Your task to perform on an android device: toggle notifications settings in the gmail app Image 0: 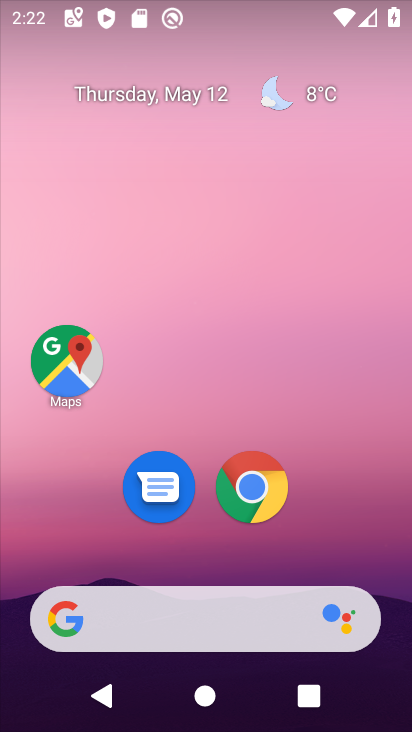
Step 0: drag from (210, 564) to (290, 9)
Your task to perform on an android device: toggle notifications settings in the gmail app Image 1: 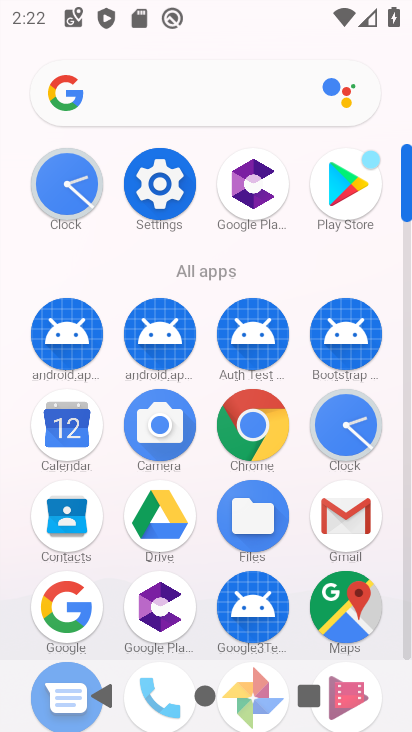
Step 1: click (336, 516)
Your task to perform on an android device: toggle notifications settings in the gmail app Image 2: 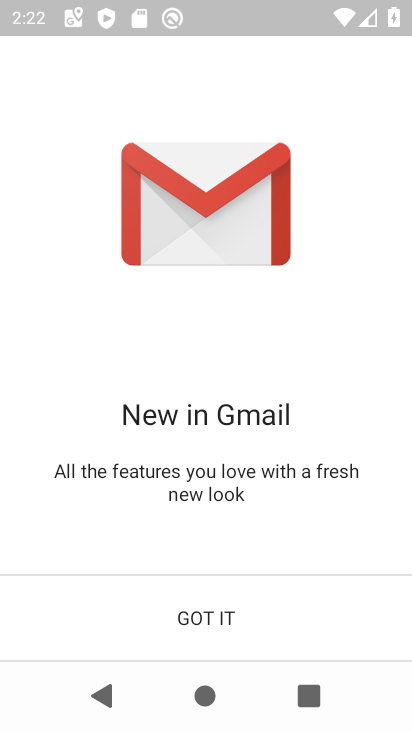
Step 2: click (197, 616)
Your task to perform on an android device: toggle notifications settings in the gmail app Image 3: 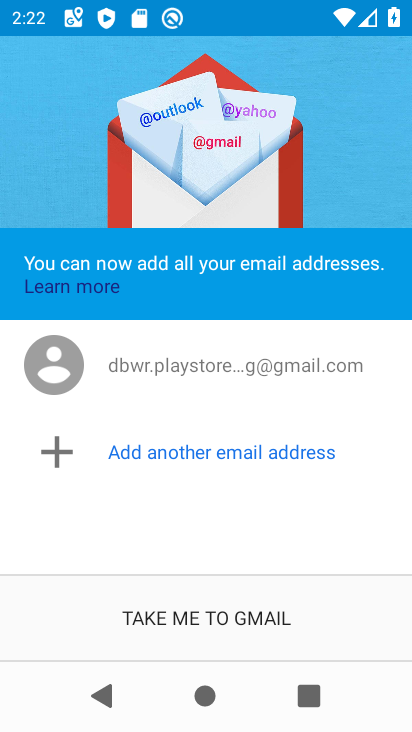
Step 3: click (197, 616)
Your task to perform on an android device: toggle notifications settings in the gmail app Image 4: 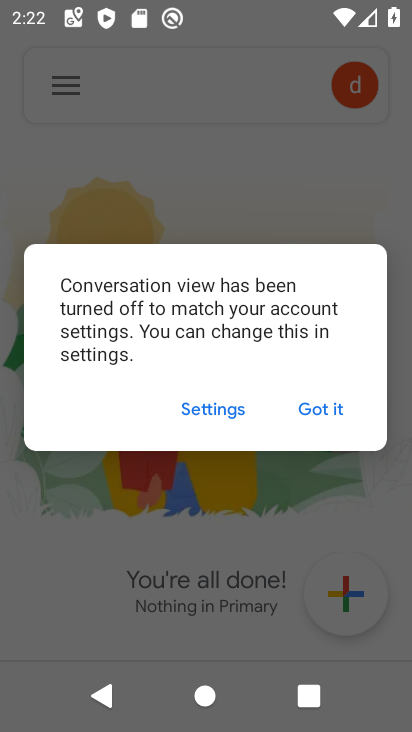
Step 4: click (309, 418)
Your task to perform on an android device: toggle notifications settings in the gmail app Image 5: 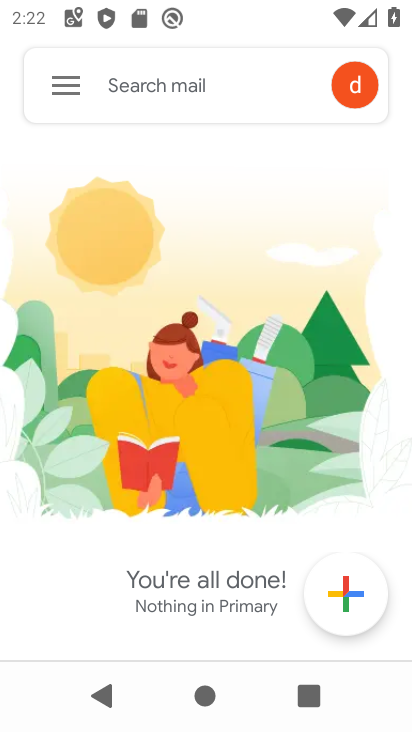
Step 5: click (64, 95)
Your task to perform on an android device: toggle notifications settings in the gmail app Image 6: 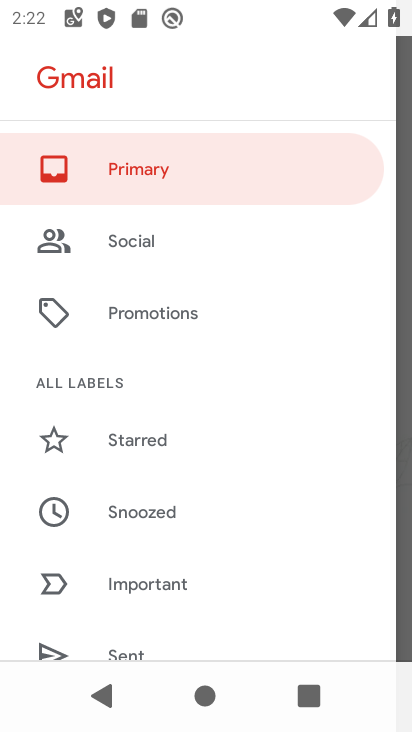
Step 6: drag from (168, 580) to (177, 129)
Your task to perform on an android device: toggle notifications settings in the gmail app Image 7: 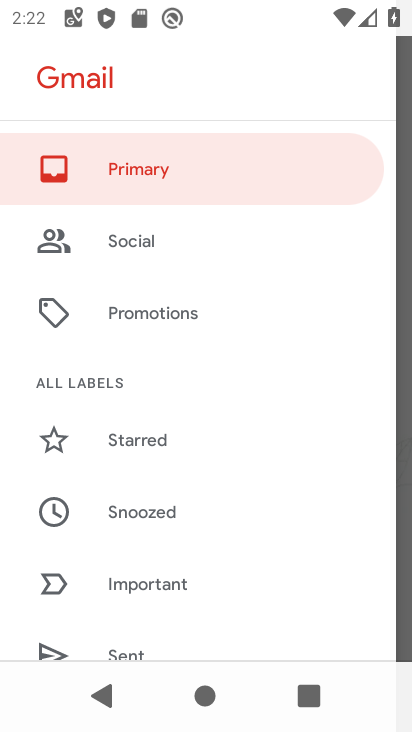
Step 7: drag from (169, 623) to (235, 84)
Your task to perform on an android device: toggle notifications settings in the gmail app Image 8: 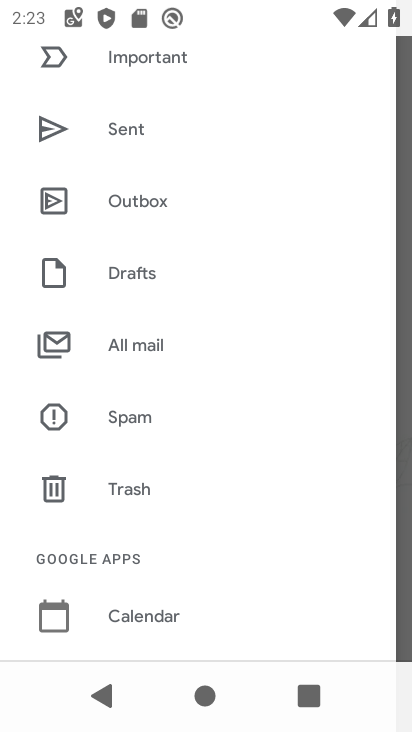
Step 8: drag from (194, 614) to (262, 65)
Your task to perform on an android device: toggle notifications settings in the gmail app Image 9: 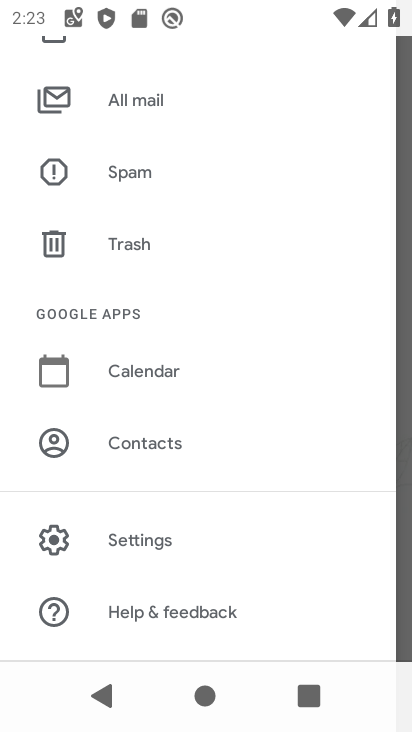
Step 9: click (138, 547)
Your task to perform on an android device: toggle notifications settings in the gmail app Image 10: 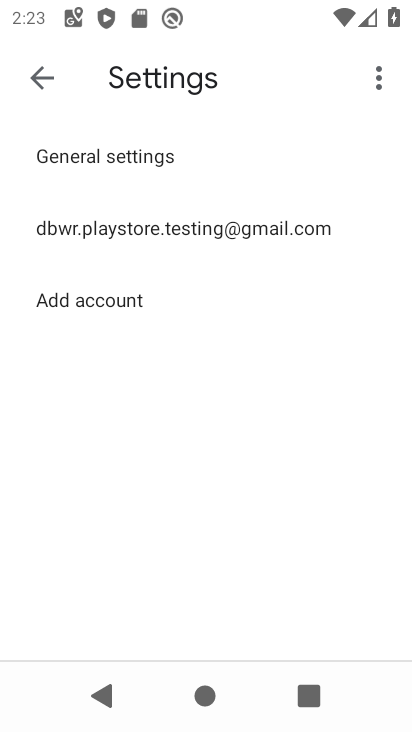
Step 10: click (148, 158)
Your task to perform on an android device: toggle notifications settings in the gmail app Image 11: 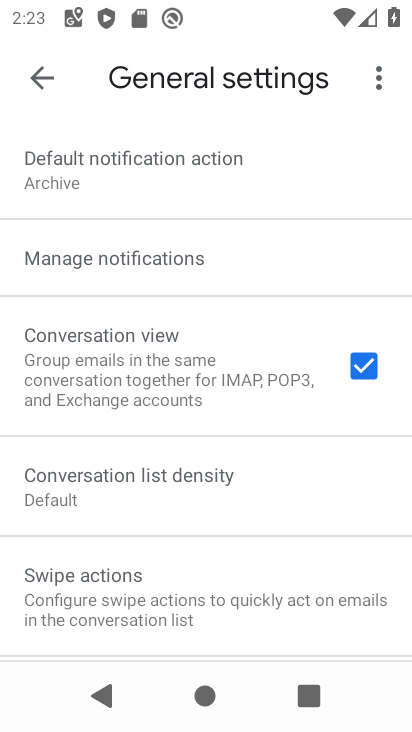
Step 11: click (141, 255)
Your task to perform on an android device: toggle notifications settings in the gmail app Image 12: 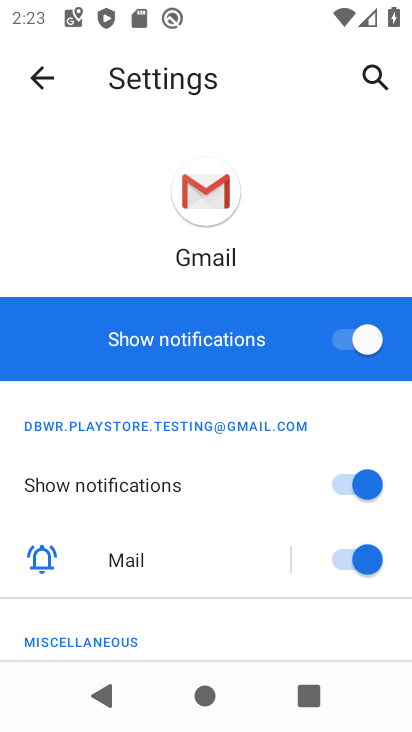
Step 12: click (338, 335)
Your task to perform on an android device: toggle notifications settings in the gmail app Image 13: 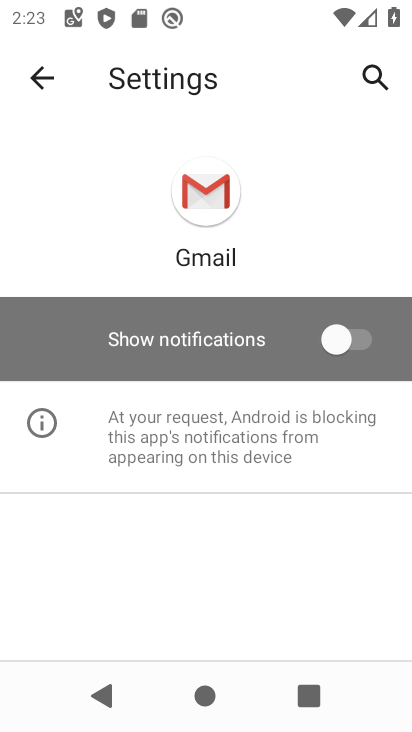
Step 13: task complete